Your task to perform on an android device: turn on the 12-hour format for clock Image 0: 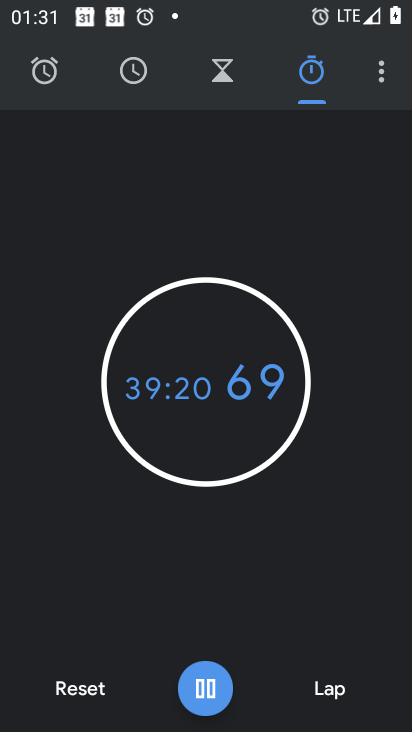
Step 0: click (379, 63)
Your task to perform on an android device: turn on the 12-hour format for clock Image 1: 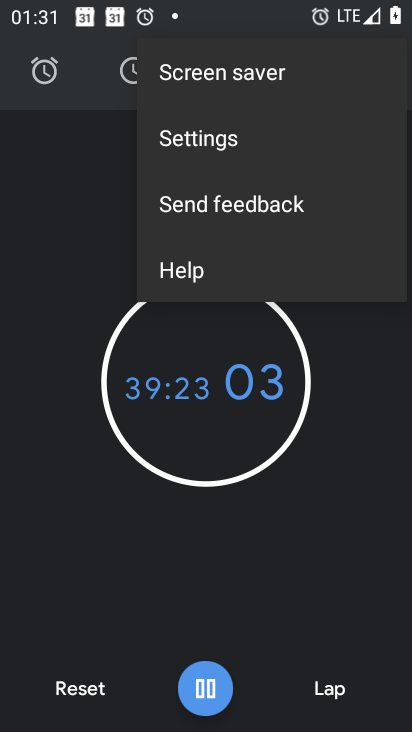
Step 1: click (267, 135)
Your task to perform on an android device: turn on the 12-hour format for clock Image 2: 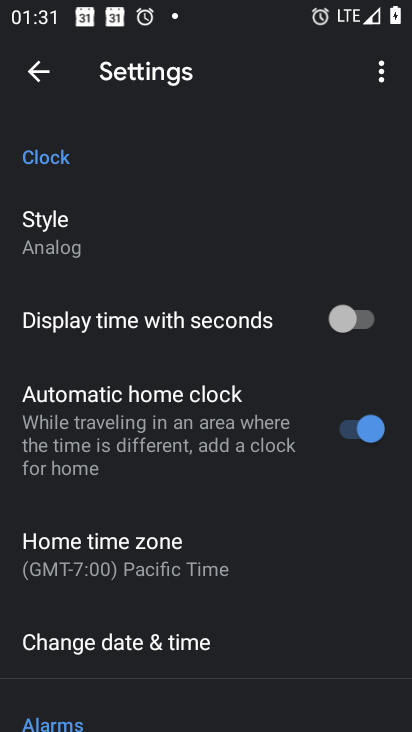
Step 2: click (140, 637)
Your task to perform on an android device: turn on the 12-hour format for clock Image 3: 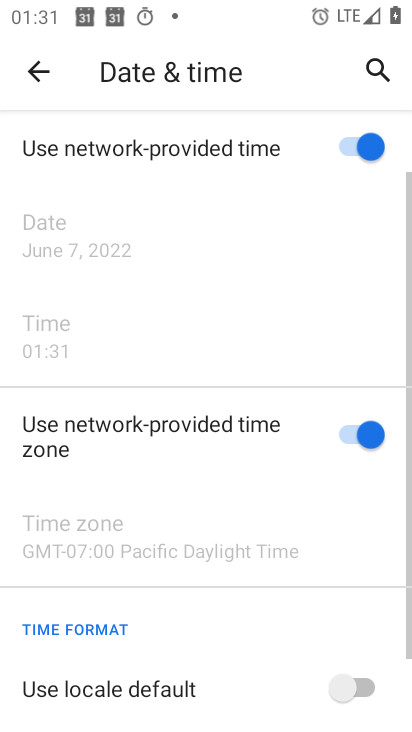
Step 3: drag from (140, 637) to (248, 202)
Your task to perform on an android device: turn on the 12-hour format for clock Image 4: 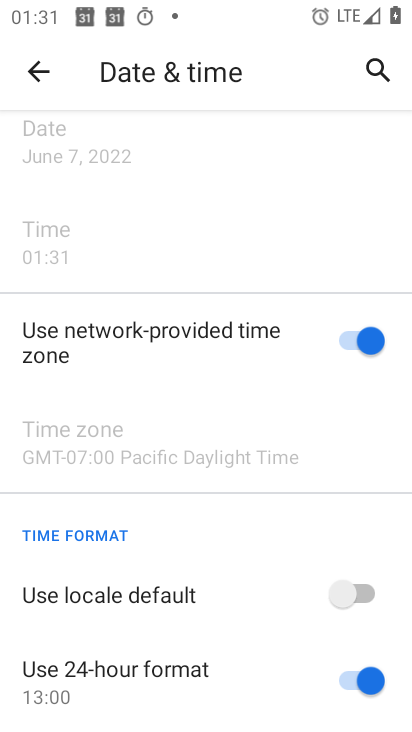
Step 4: click (349, 587)
Your task to perform on an android device: turn on the 12-hour format for clock Image 5: 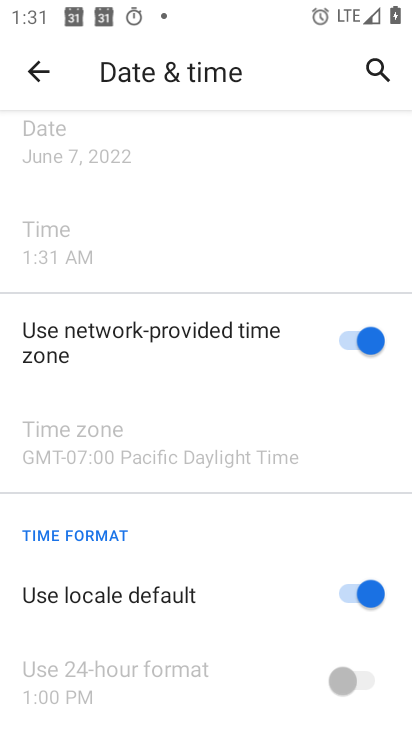
Step 5: task complete